Your task to perform on an android device: toggle javascript in the chrome app Image 0: 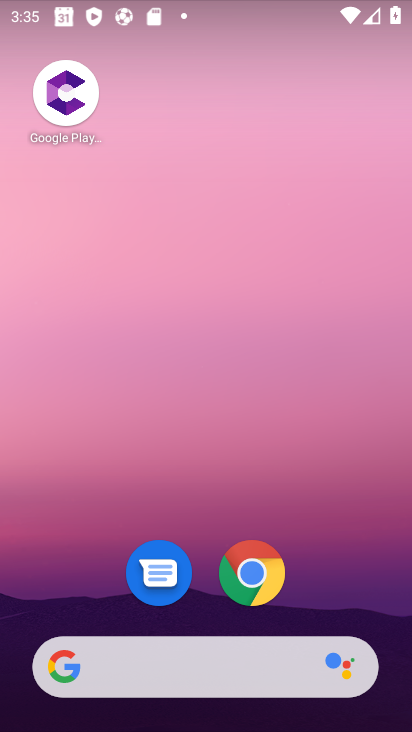
Step 0: click (238, 545)
Your task to perform on an android device: toggle javascript in the chrome app Image 1: 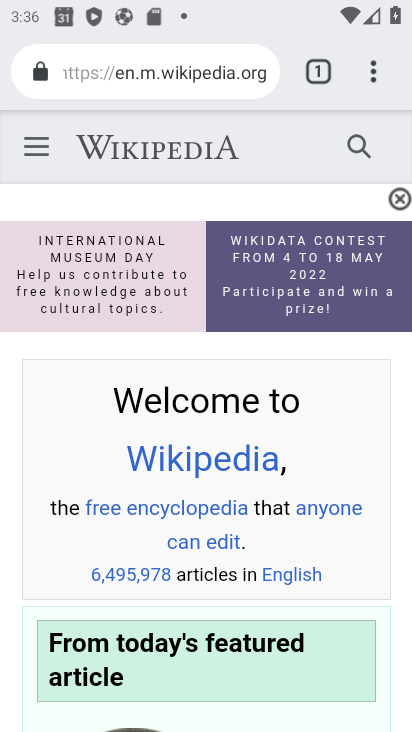
Step 1: click (376, 68)
Your task to perform on an android device: toggle javascript in the chrome app Image 2: 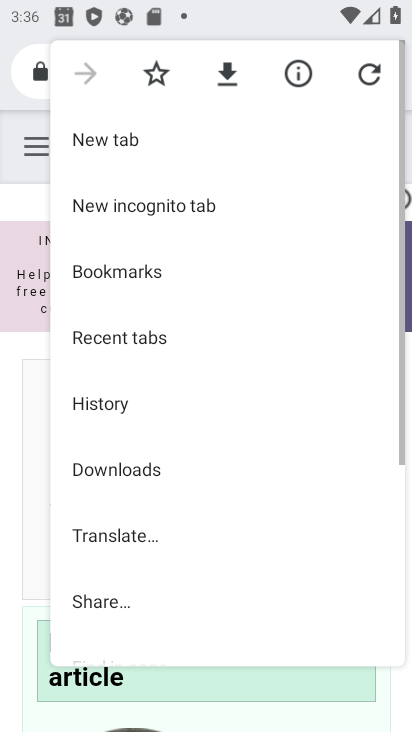
Step 2: drag from (154, 560) to (204, 201)
Your task to perform on an android device: toggle javascript in the chrome app Image 3: 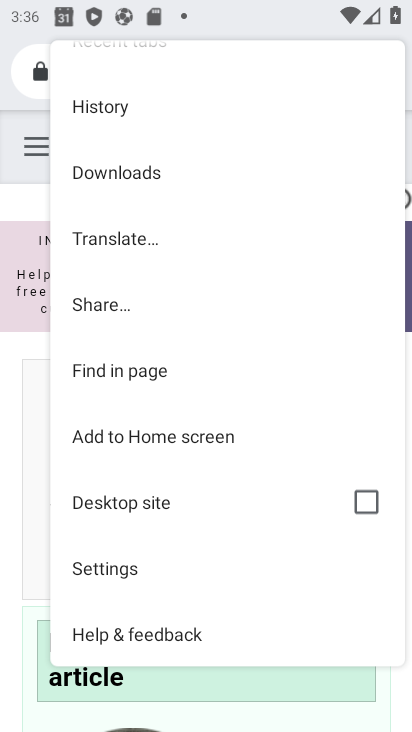
Step 3: click (98, 576)
Your task to perform on an android device: toggle javascript in the chrome app Image 4: 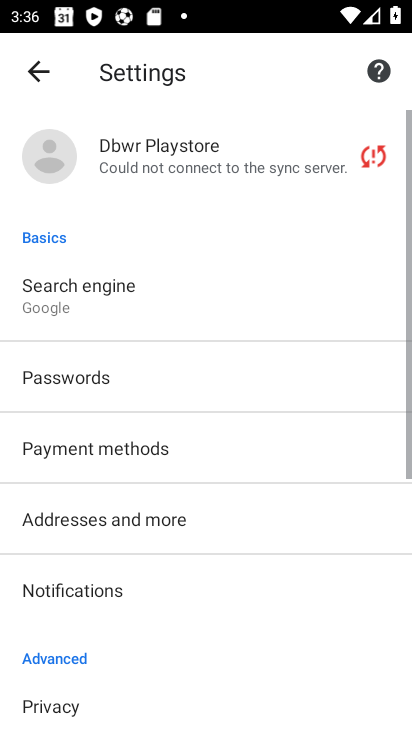
Step 4: drag from (173, 612) to (229, 337)
Your task to perform on an android device: toggle javascript in the chrome app Image 5: 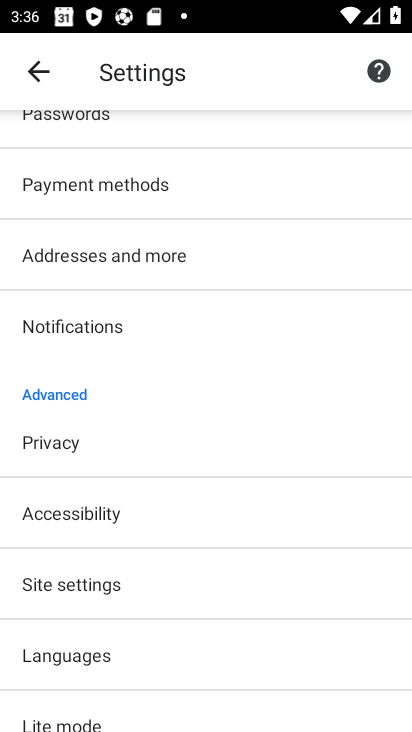
Step 5: click (85, 585)
Your task to perform on an android device: toggle javascript in the chrome app Image 6: 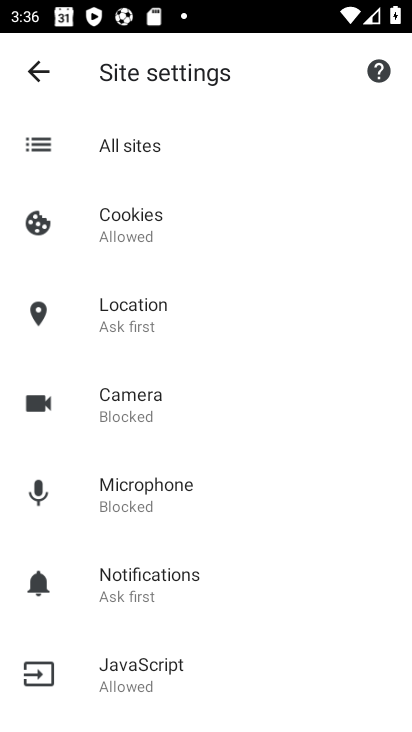
Step 6: click (128, 677)
Your task to perform on an android device: toggle javascript in the chrome app Image 7: 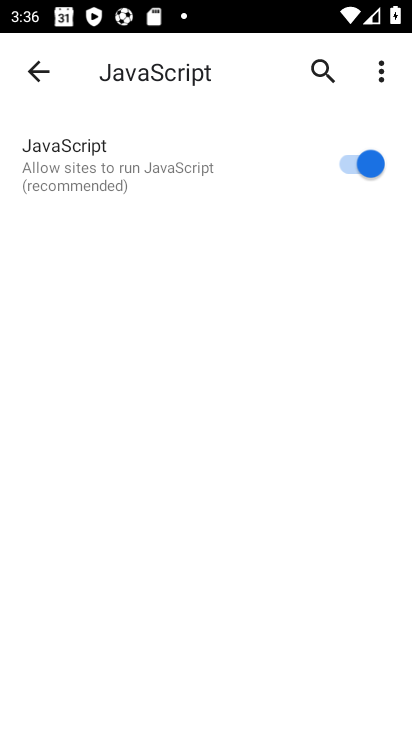
Step 7: click (373, 168)
Your task to perform on an android device: toggle javascript in the chrome app Image 8: 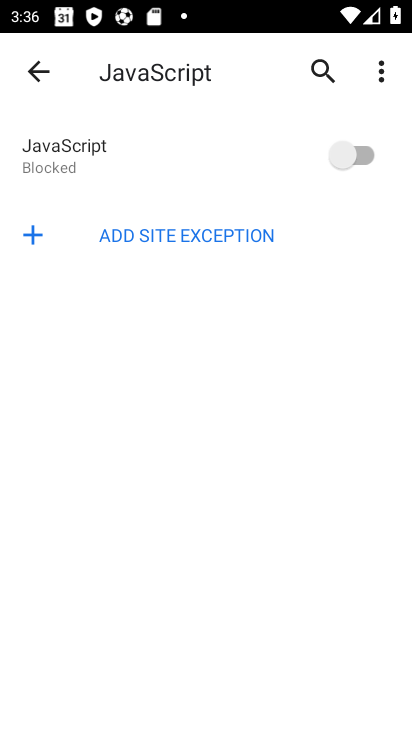
Step 8: task complete